Your task to perform on an android device: Clear all items from cart on target. Add razer deathadder to the cart on target, then select checkout. Image 0: 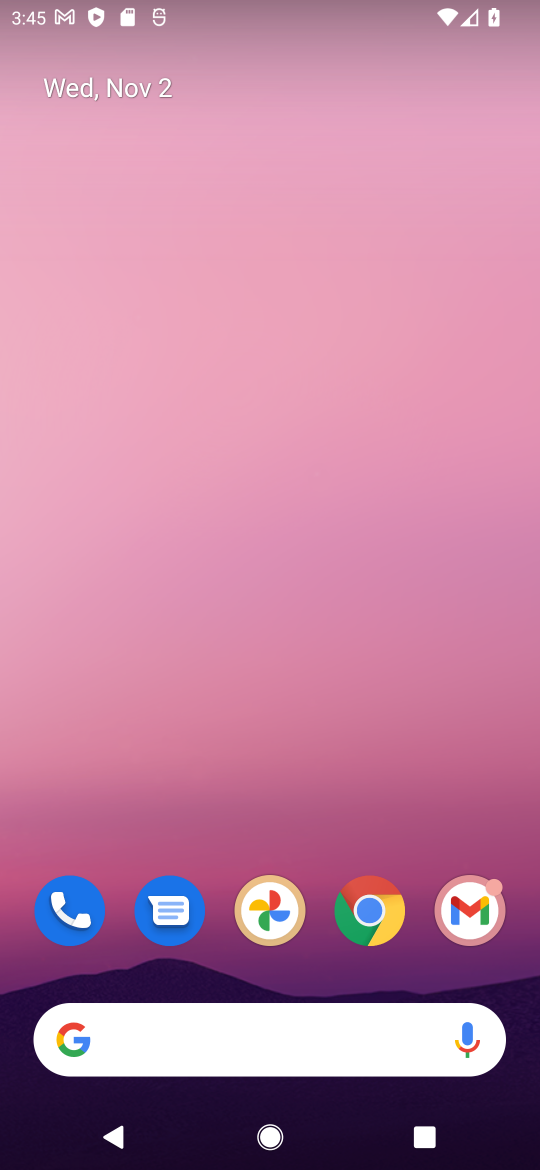
Step 0: click (367, 927)
Your task to perform on an android device: Clear all items from cart on target. Add razer deathadder to the cart on target, then select checkout. Image 1: 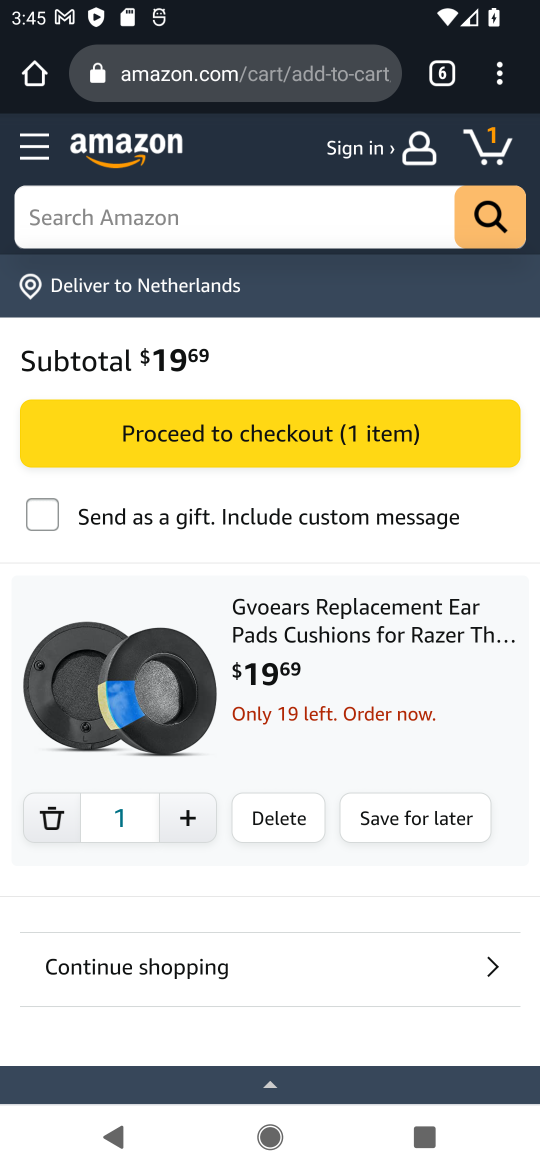
Step 1: click (446, 74)
Your task to perform on an android device: Clear all items from cart on target. Add razer deathadder to the cart on target, then select checkout. Image 2: 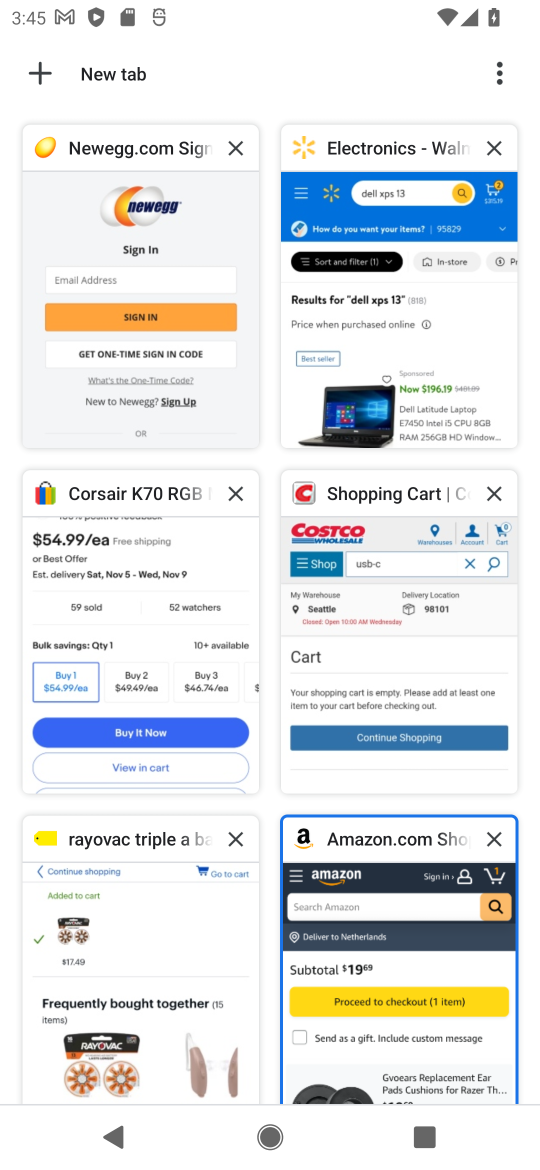
Step 2: click (43, 64)
Your task to perform on an android device: Clear all items from cart on target. Add razer deathadder to the cart on target, then select checkout. Image 3: 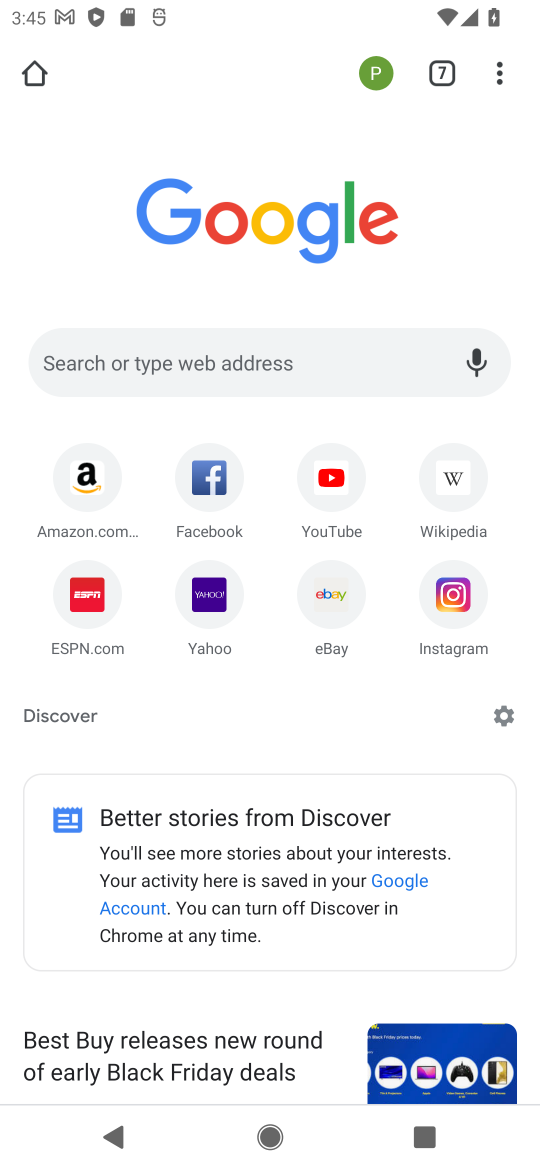
Step 3: click (313, 357)
Your task to perform on an android device: Clear all items from cart on target. Add razer deathadder to the cart on target, then select checkout. Image 4: 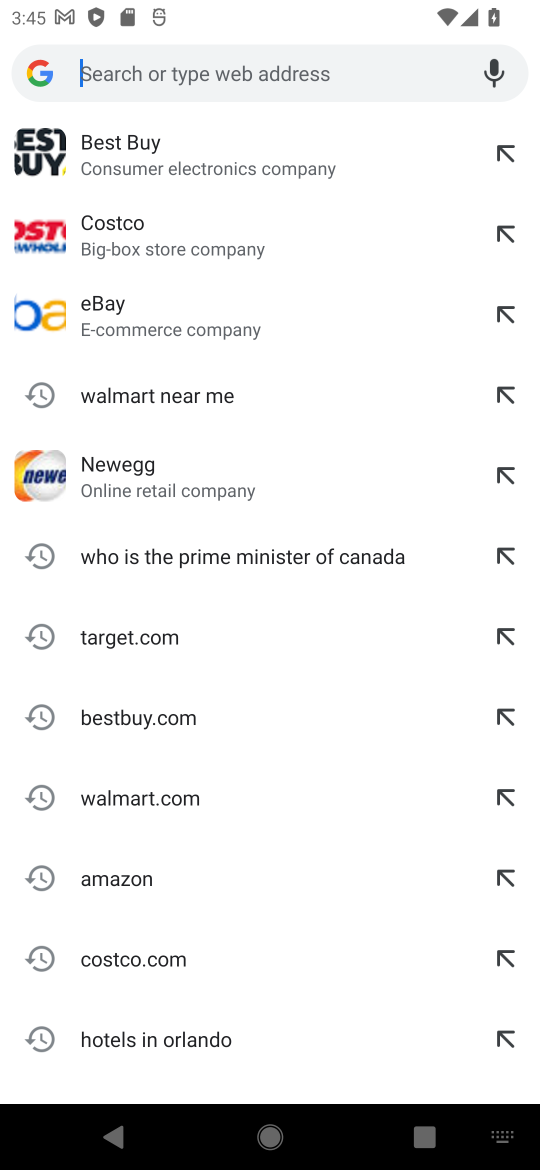
Step 4: click (97, 637)
Your task to perform on an android device: Clear all items from cart on target. Add razer deathadder to the cart on target, then select checkout. Image 5: 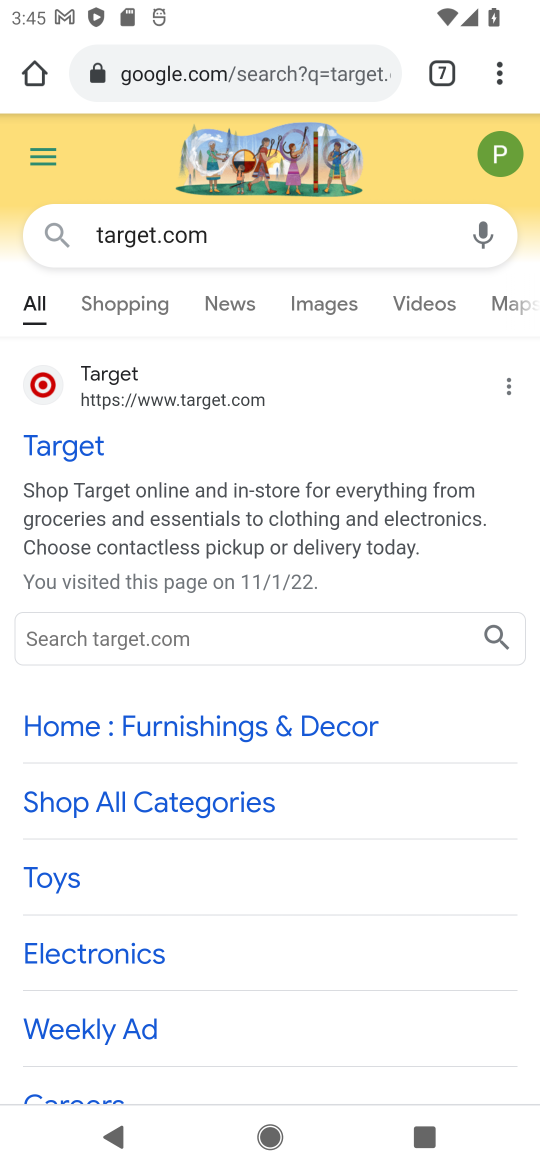
Step 5: click (190, 645)
Your task to perform on an android device: Clear all items from cart on target. Add razer deathadder to the cart on target, then select checkout. Image 6: 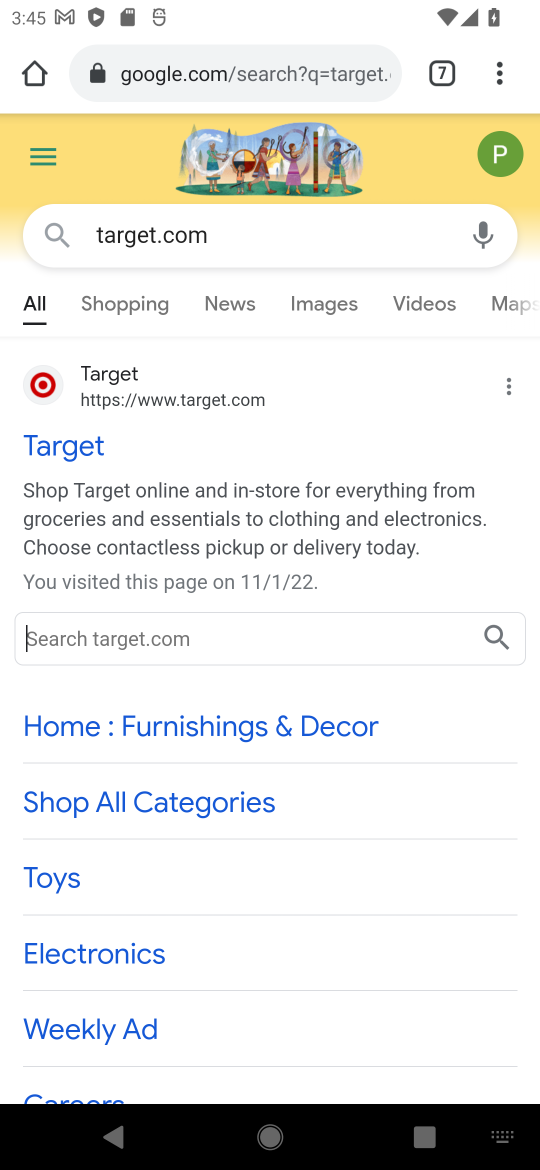
Step 6: type "razer deathadder"
Your task to perform on an android device: Clear all items from cart on target. Add razer deathadder to the cart on target, then select checkout. Image 7: 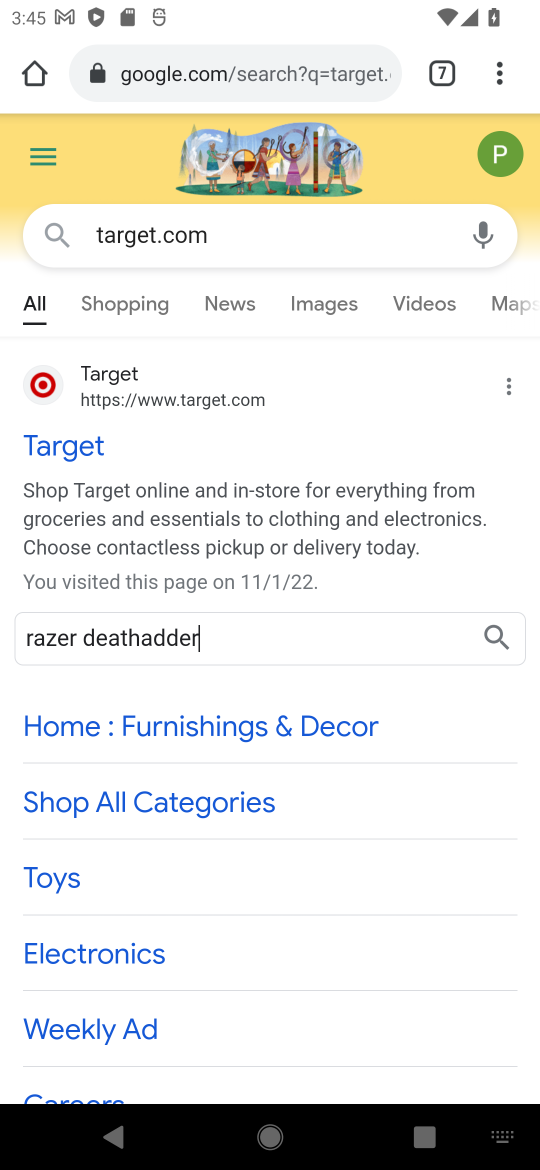
Step 7: click (497, 629)
Your task to perform on an android device: Clear all items from cart on target. Add razer deathadder to the cart on target, then select checkout. Image 8: 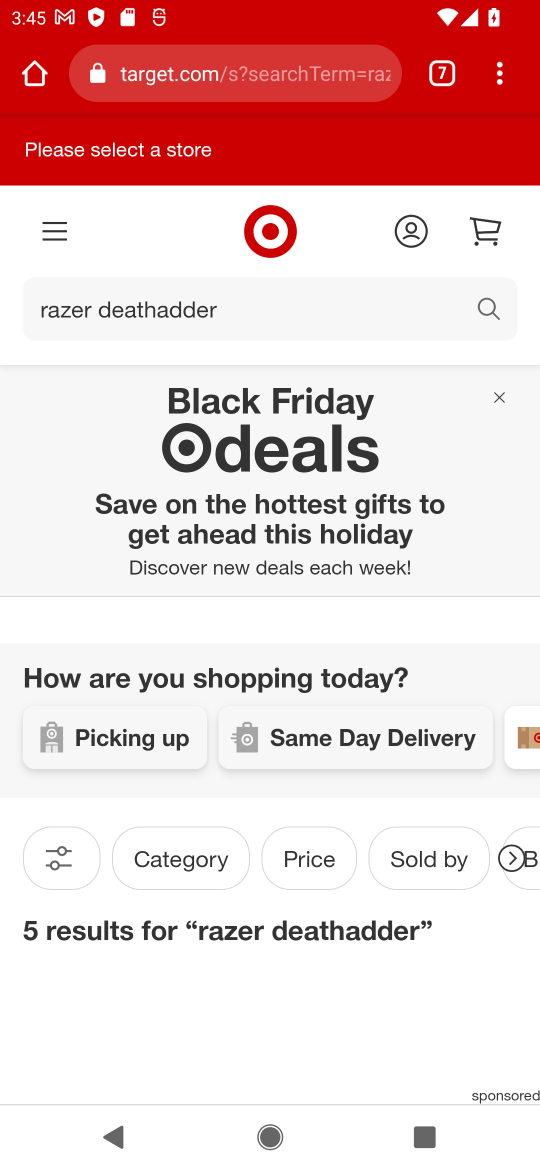
Step 8: drag from (336, 966) to (342, 583)
Your task to perform on an android device: Clear all items from cart on target. Add razer deathadder to the cart on target, then select checkout. Image 9: 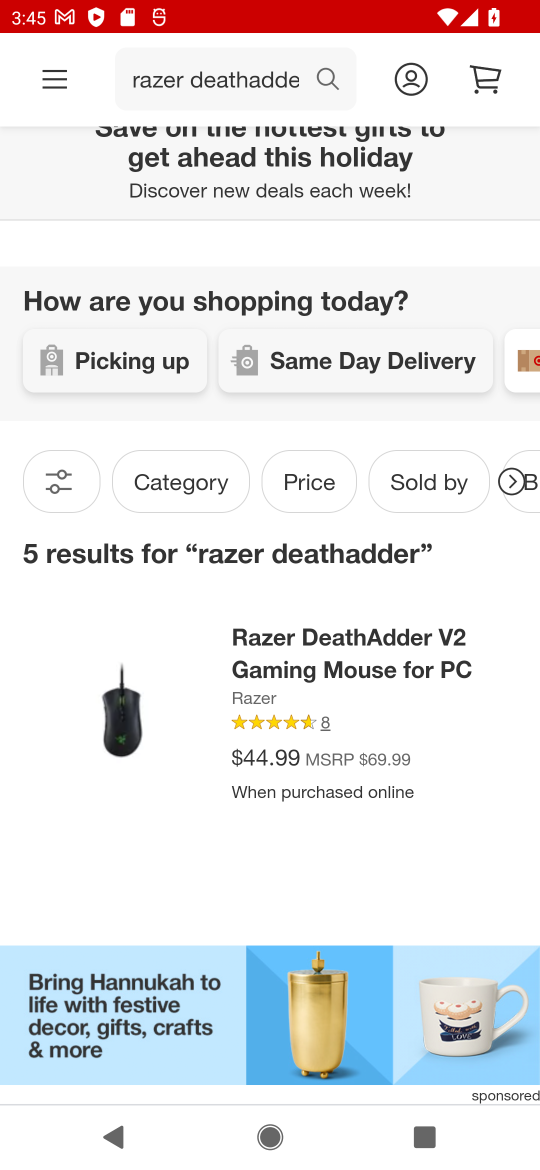
Step 9: drag from (347, 766) to (354, 338)
Your task to perform on an android device: Clear all items from cart on target. Add razer deathadder to the cart on target, then select checkout. Image 10: 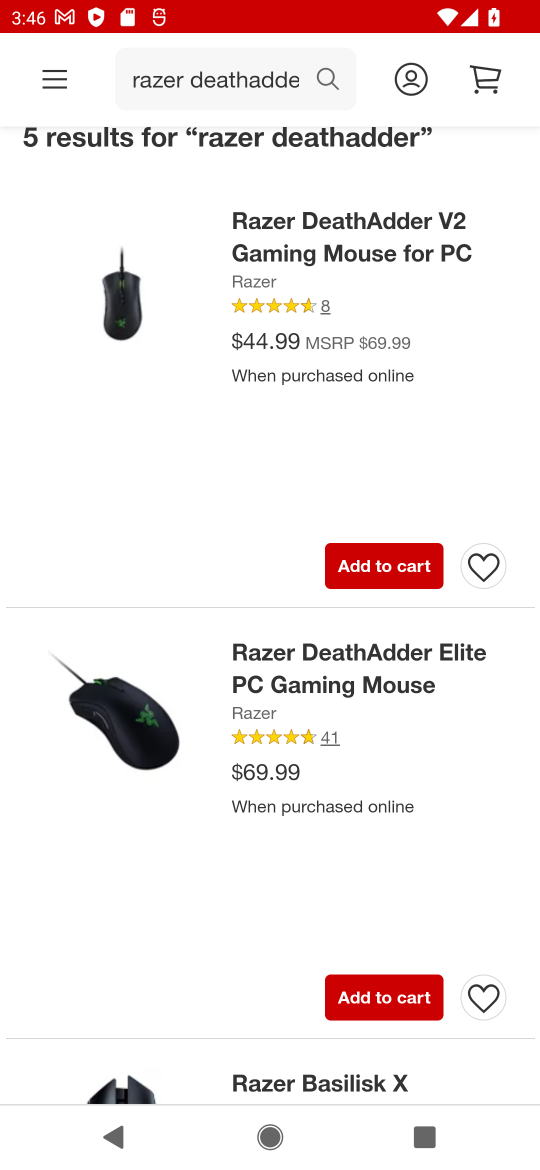
Step 10: click (376, 579)
Your task to perform on an android device: Clear all items from cart on target. Add razer deathadder to the cart on target, then select checkout. Image 11: 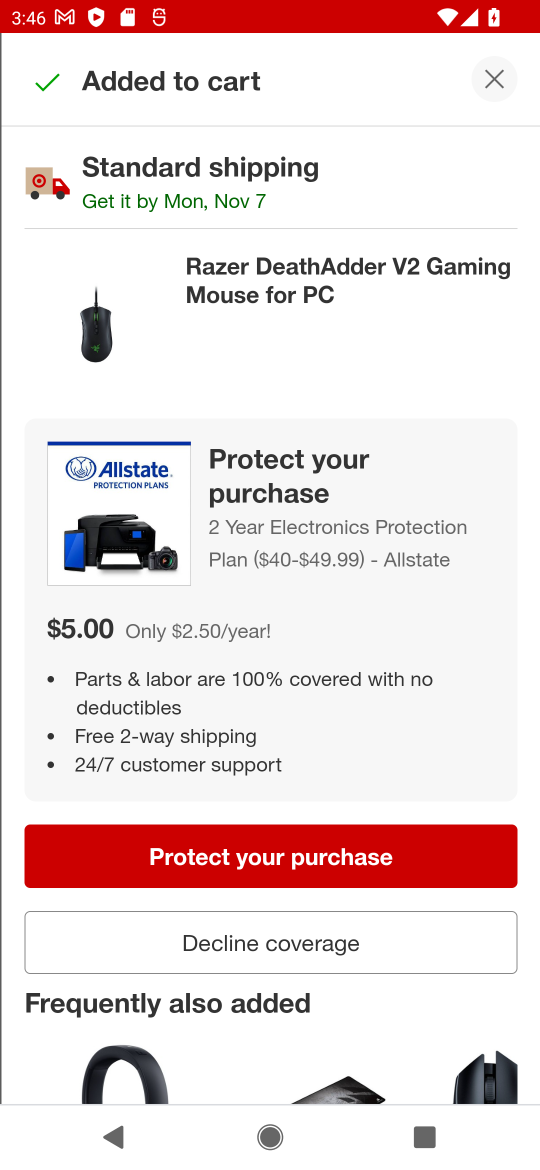
Step 11: click (301, 944)
Your task to perform on an android device: Clear all items from cart on target. Add razer deathadder to the cart on target, then select checkout. Image 12: 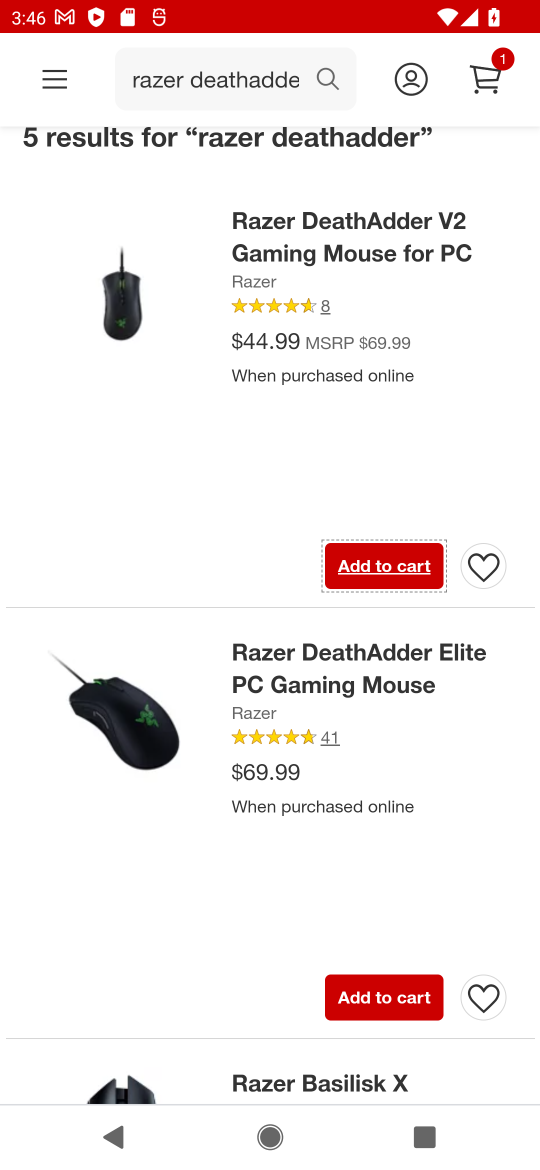
Step 12: click (493, 72)
Your task to perform on an android device: Clear all items from cart on target. Add razer deathadder to the cart on target, then select checkout. Image 13: 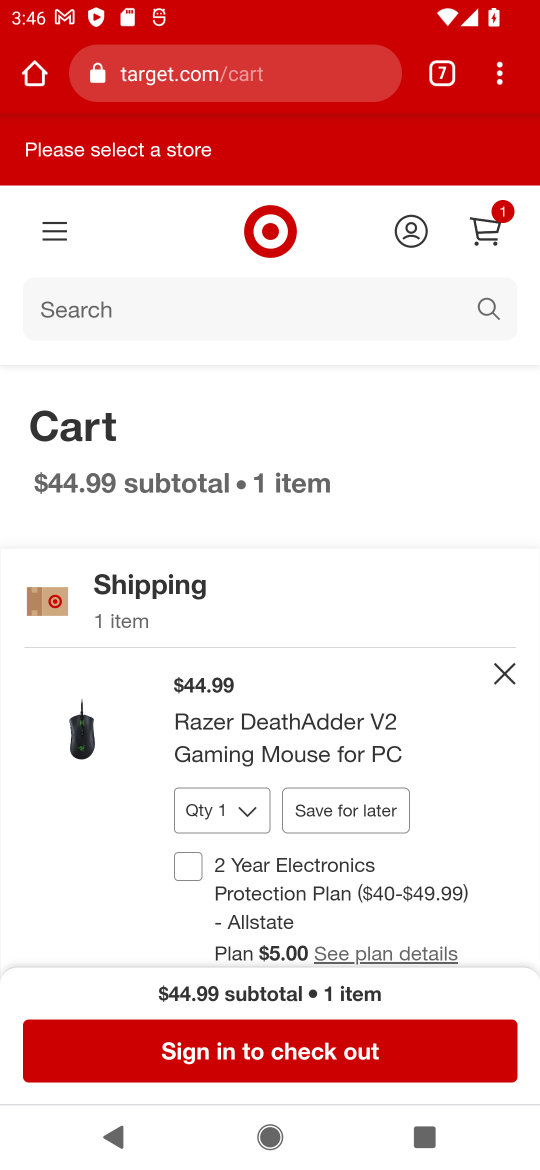
Step 13: click (275, 1050)
Your task to perform on an android device: Clear all items from cart on target. Add razer deathadder to the cart on target, then select checkout. Image 14: 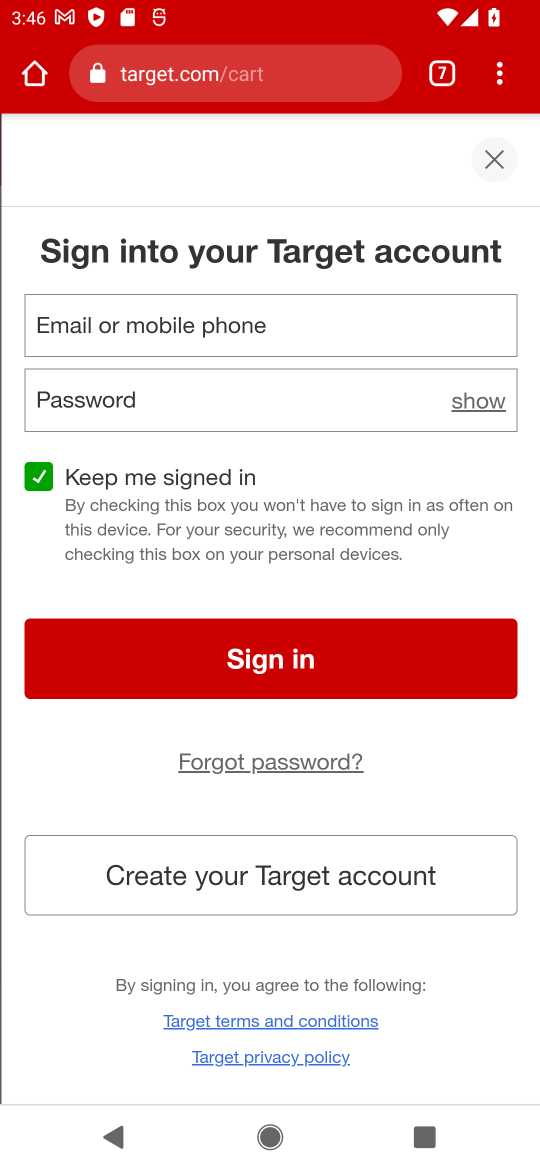
Step 14: task complete